Your task to perform on an android device: make emails show in primary in the gmail app Image 0: 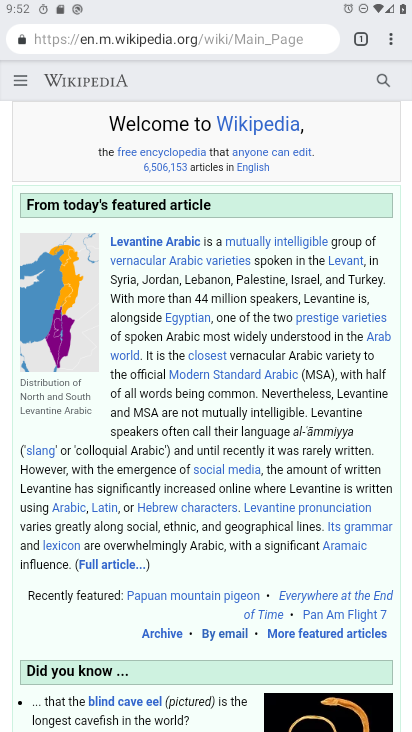
Step 0: press home button
Your task to perform on an android device: make emails show in primary in the gmail app Image 1: 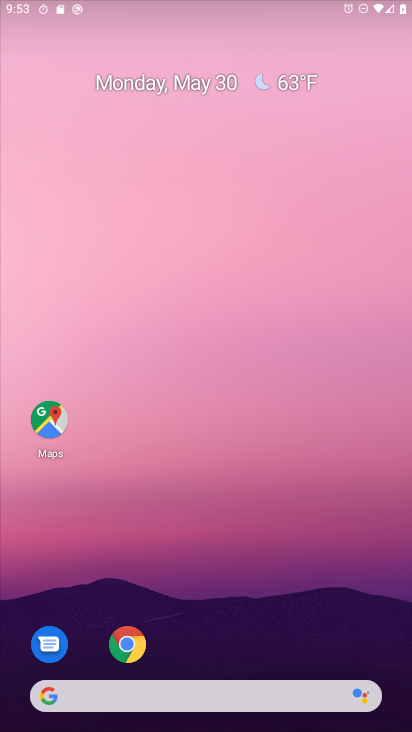
Step 1: drag from (205, 634) to (214, 87)
Your task to perform on an android device: make emails show in primary in the gmail app Image 2: 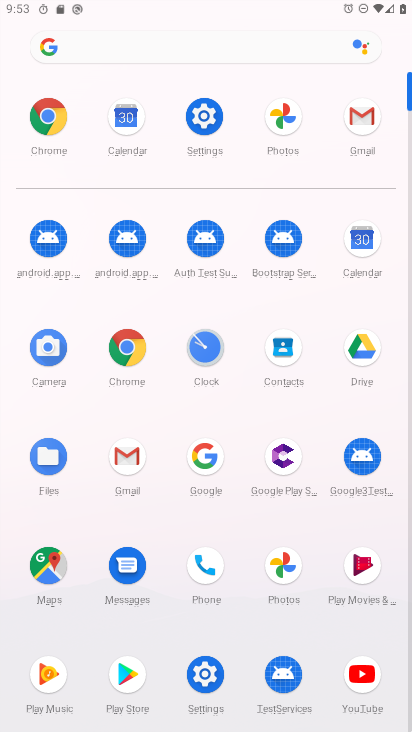
Step 2: click (365, 117)
Your task to perform on an android device: make emails show in primary in the gmail app Image 3: 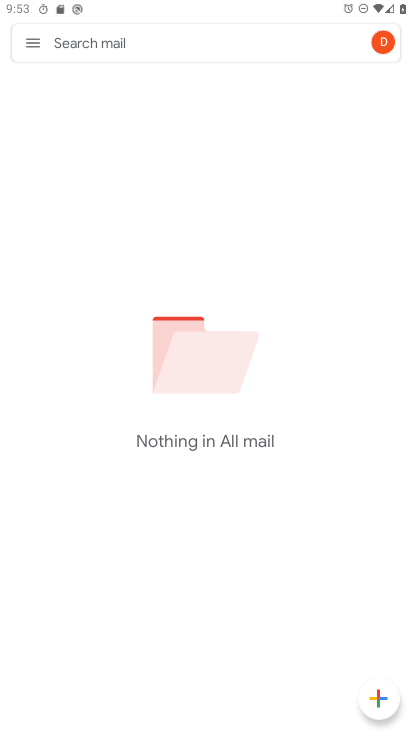
Step 3: click (27, 45)
Your task to perform on an android device: make emails show in primary in the gmail app Image 4: 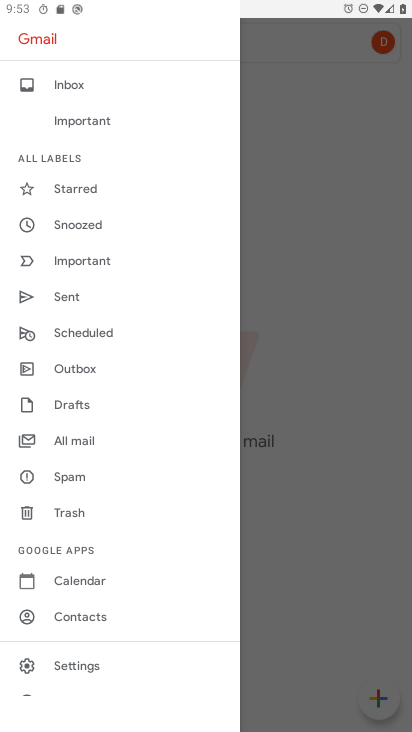
Step 4: click (79, 667)
Your task to perform on an android device: make emails show in primary in the gmail app Image 5: 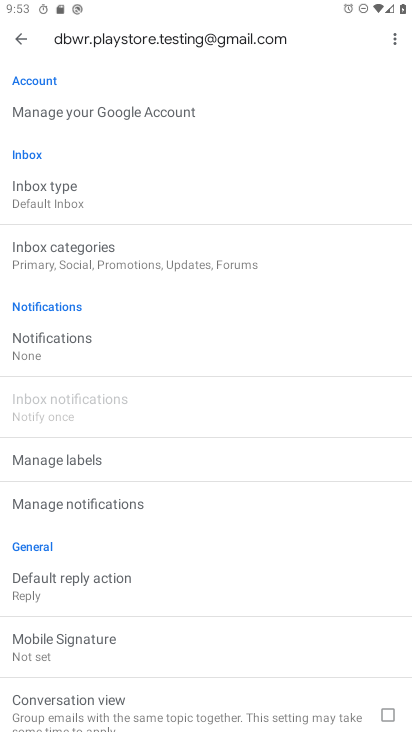
Step 5: click (69, 252)
Your task to perform on an android device: make emails show in primary in the gmail app Image 6: 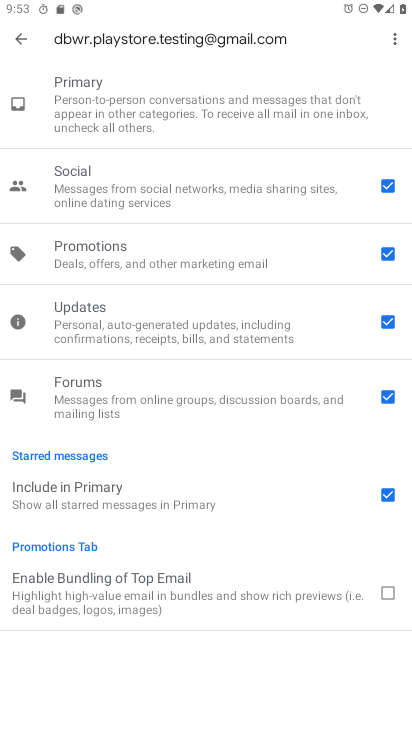
Step 6: click (381, 255)
Your task to perform on an android device: make emails show in primary in the gmail app Image 7: 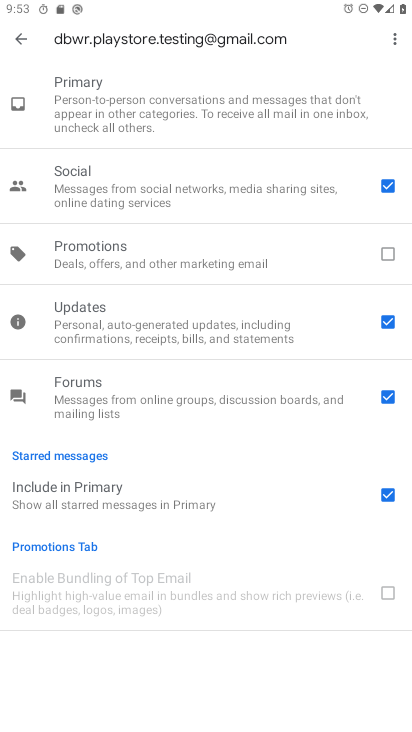
Step 7: click (389, 330)
Your task to perform on an android device: make emails show in primary in the gmail app Image 8: 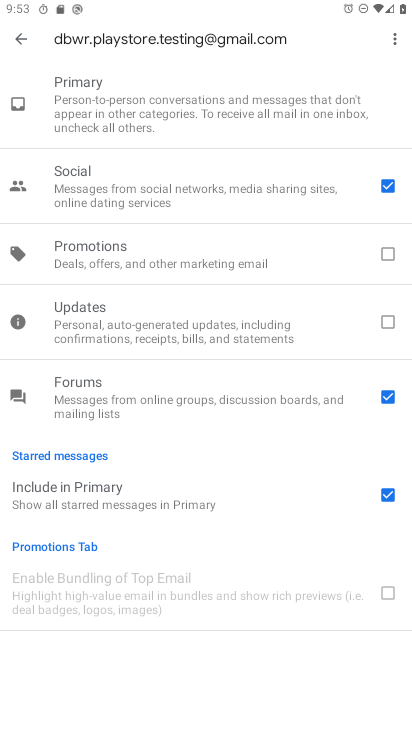
Step 8: click (391, 399)
Your task to perform on an android device: make emails show in primary in the gmail app Image 9: 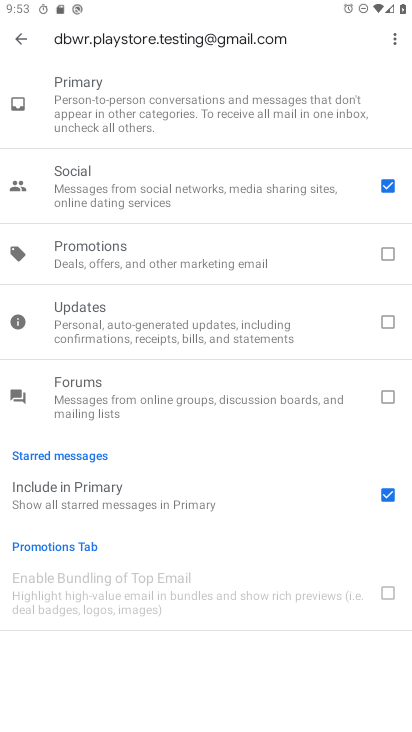
Step 9: click (386, 187)
Your task to perform on an android device: make emails show in primary in the gmail app Image 10: 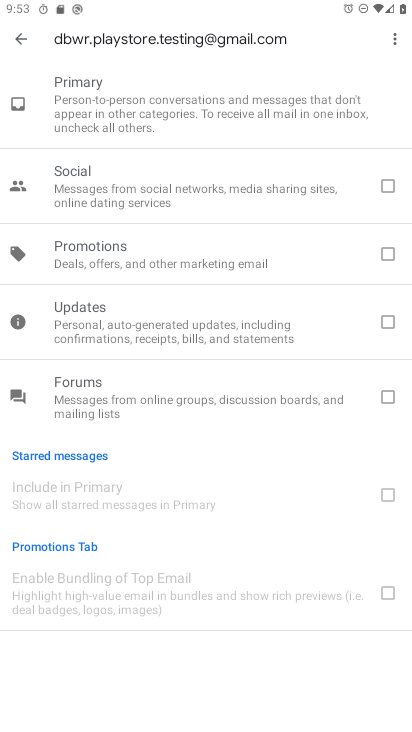
Step 10: task complete